Your task to perform on an android device: Open Google Chrome and open the bookmarks view Image 0: 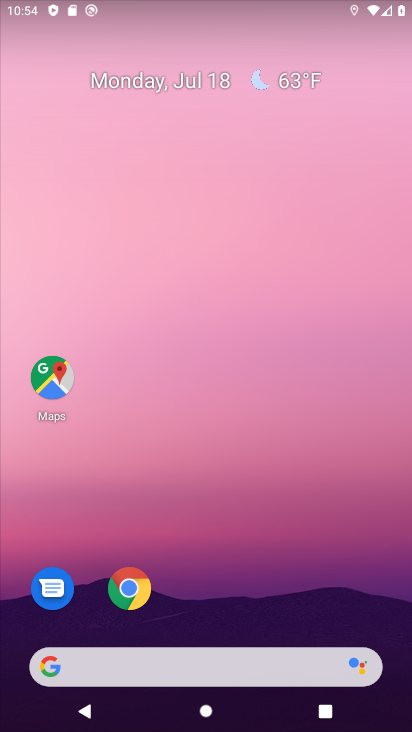
Step 0: click (133, 586)
Your task to perform on an android device: Open Google Chrome and open the bookmarks view Image 1: 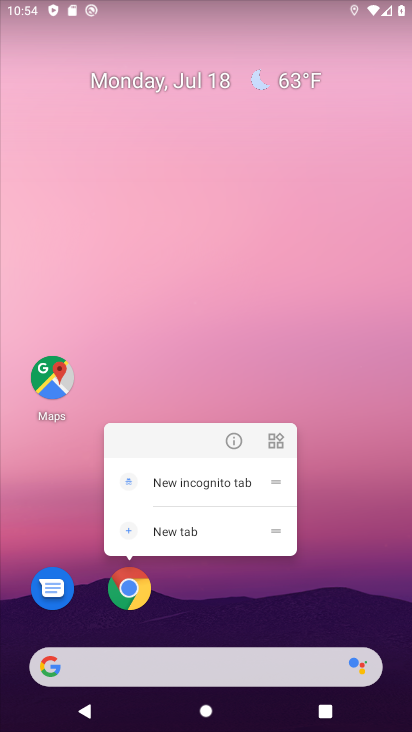
Step 1: click (129, 592)
Your task to perform on an android device: Open Google Chrome and open the bookmarks view Image 2: 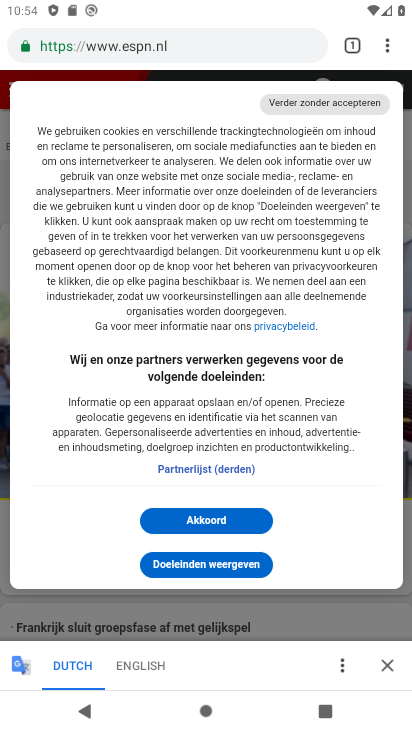
Step 2: drag from (391, 55) to (287, 175)
Your task to perform on an android device: Open Google Chrome and open the bookmarks view Image 3: 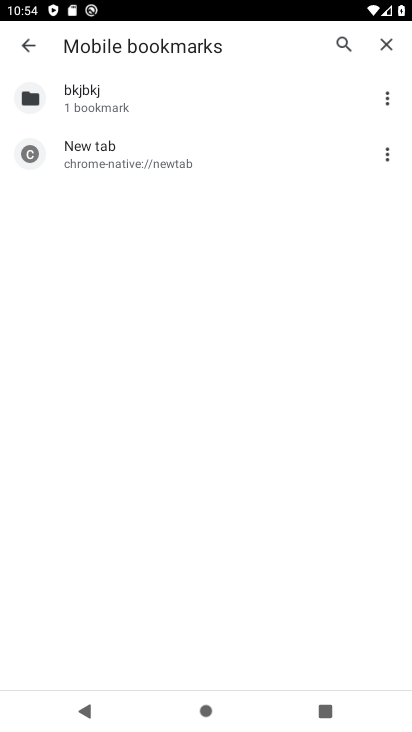
Step 3: click (98, 160)
Your task to perform on an android device: Open Google Chrome and open the bookmarks view Image 4: 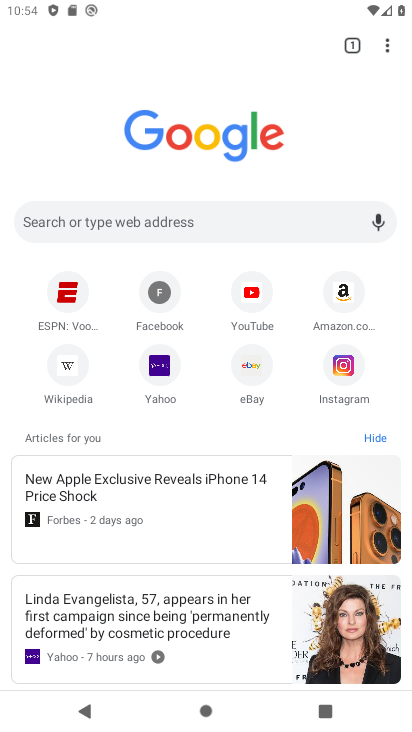
Step 4: task complete